Your task to perform on an android device: Clear the cart on newegg.com. Add dell alienware to the cart on newegg.com, then select checkout. Image 0: 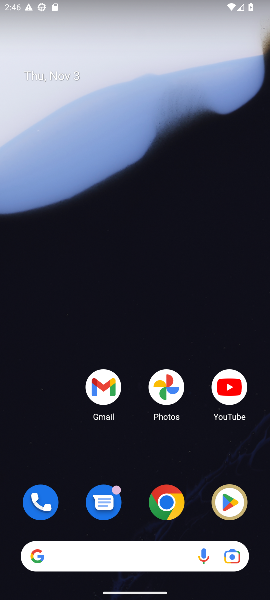
Step 0: drag from (130, 495) to (149, 275)
Your task to perform on an android device: Clear the cart on newegg.com. Add dell alienware to the cart on newegg.com, then select checkout. Image 1: 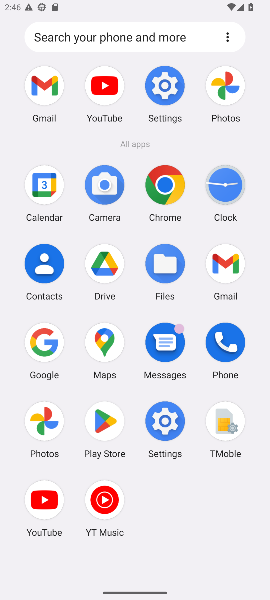
Step 1: click (49, 353)
Your task to perform on an android device: Clear the cart on newegg.com. Add dell alienware to the cart on newegg.com, then select checkout. Image 2: 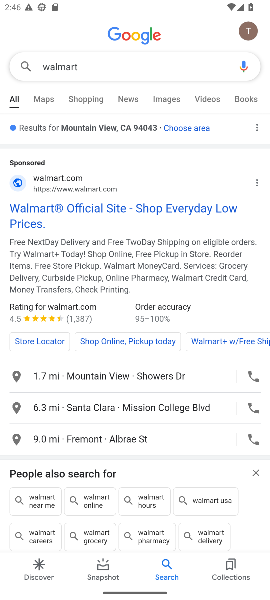
Step 2: click (148, 63)
Your task to perform on an android device: Clear the cart on newegg.com. Add dell alienware to the cart on newegg.com, then select checkout. Image 3: 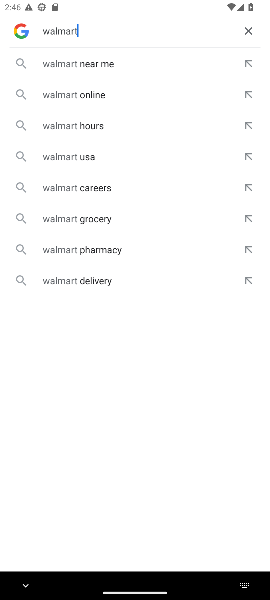
Step 3: click (246, 31)
Your task to perform on an android device: Clear the cart on newegg.com. Add dell alienware to the cart on newegg.com, then select checkout. Image 4: 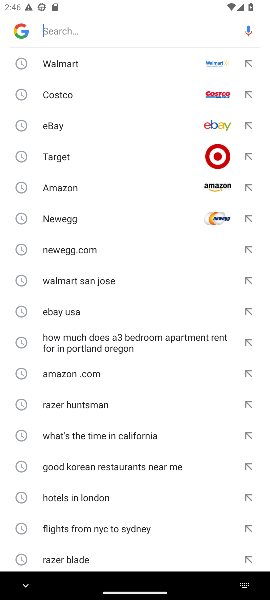
Step 4: type "newegg.com"
Your task to perform on an android device: Clear the cart on newegg.com. Add dell alienware to the cart on newegg.com, then select checkout. Image 5: 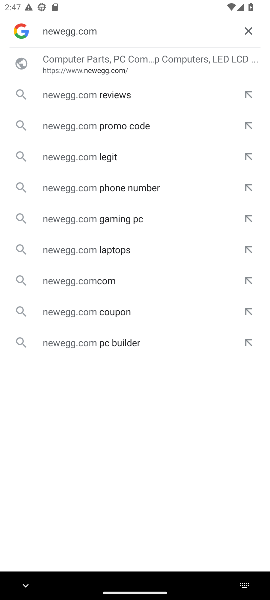
Step 5: click (190, 64)
Your task to perform on an android device: Clear the cart on newegg.com. Add dell alienware to the cart on newegg.com, then select checkout. Image 6: 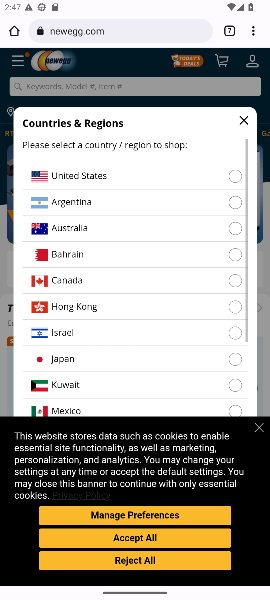
Step 6: click (262, 427)
Your task to perform on an android device: Clear the cart on newegg.com. Add dell alienware to the cart on newegg.com, then select checkout. Image 7: 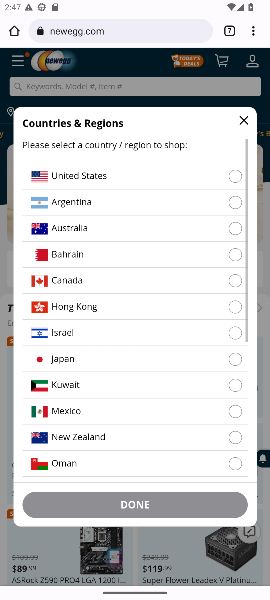
Step 7: click (242, 119)
Your task to perform on an android device: Clear the cart on newegg.com. Add dell alienware to the cart on newegg.com, then select checkout. Image 8: 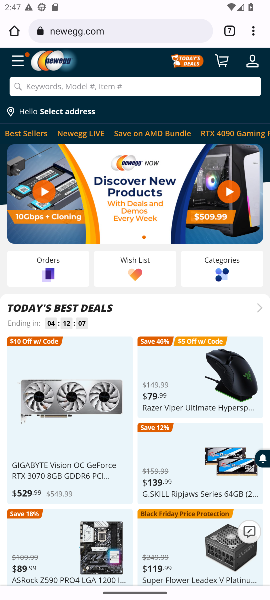
Step 8: click (139, 180)
Your task to perform on an android device: Clear the cart on newegg.com. Add dell alienware to the cart on newegg.com, then select checkout. Image 9: 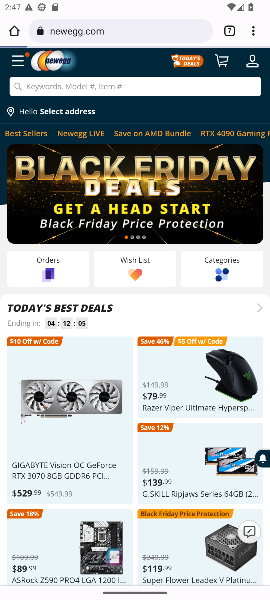
Step 9: click (151, 89)
Your task to perform on an android device: Clear the cart on newegg.com. Add dell alienware to the cart on newegg.com, then select checkout. Image 10: 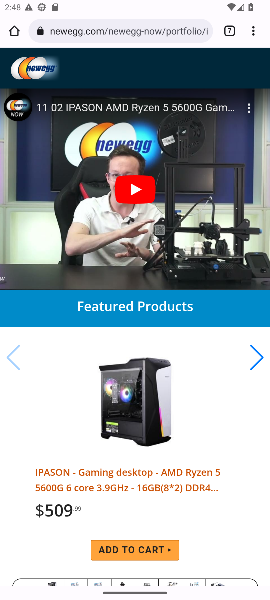
Step 10: press back button
Your task to perform on an android device: Clear the cart on newegg.com. Add dell alienware to the cart on newegg.com, then select checkout. Image 11: 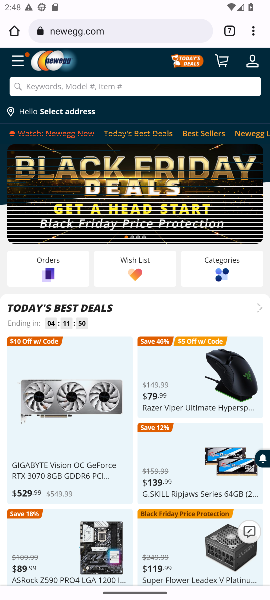
Step 11: click (166, 90)
Your task to perform on an android device: Clear the cart on newegg.com. Add dell alienware to the cart on newegg.com, then select checkout. Image 12: 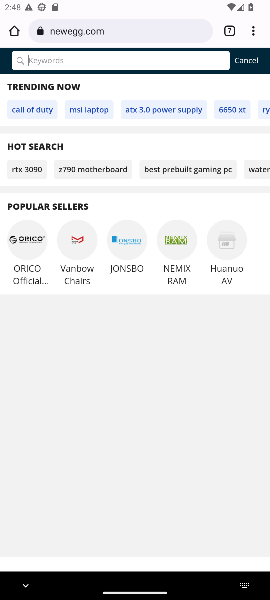
Step 12: type "dell alienware"
Your task to perform on an android device: Clear the cart on newegg.com. Add dell alienware to the cart on newegg.com, then select checkout. Image 13: 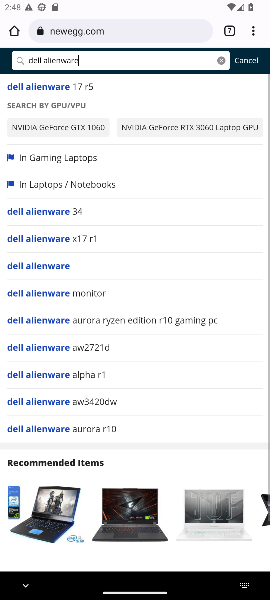
Step 13: click (61, 263)
Your task to perform on an android device: Clear the cart on newegg.com. Add dell alienware to the cart on newegg.com, then select checkout. Image 14: 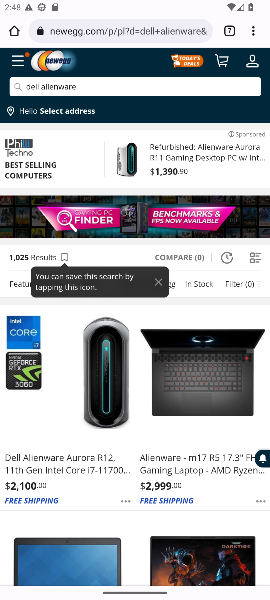
Step 14: click (82, 369)
Your task to perform on an android device: Clear the cart on newegg.com. Add dell alienware to the cart on newegg.com, then select checkout. Image 15: 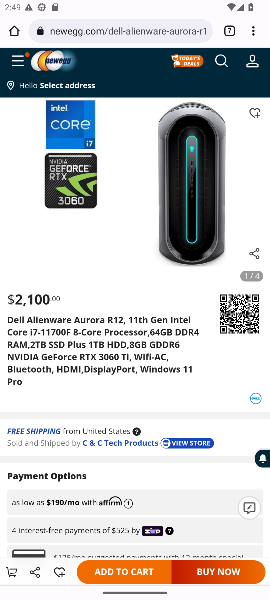
Step 15: click (159, 574)
Your task to perform on an android device: Clear the cart on newegg.com. Add dell alienware to the cart on newegg.com, then select checkout. Image 16: 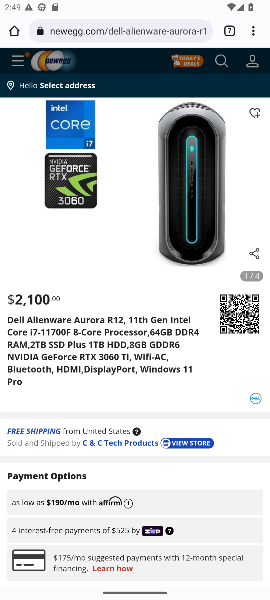
Step 16: drag from (167, 464) to (228, 146)
Your task to perform on an android device: Clear the cart on newegg.com. Add dell alienware to the cart on newegg.com, then select checkout. Image 17: 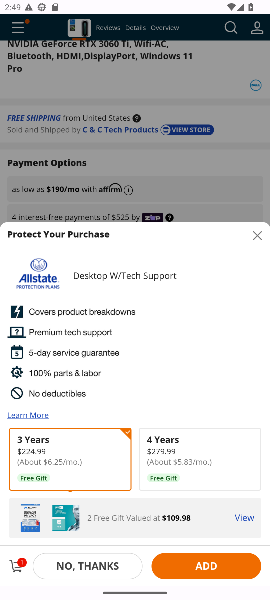
Step 17: click (87, 565)
Your task to perform on an android device: Clear the cart on newegg.com. Add dell alienware to the cart on newegg.com, then select checkout. Image 18: 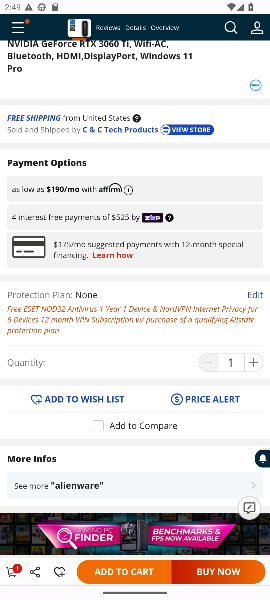
Step 18: click (13, 565)
Your task to perform on an android device: Clear the cart on newegg.com. Add dell alienware to the cart on newegg.com, then select checkout. Image 19: 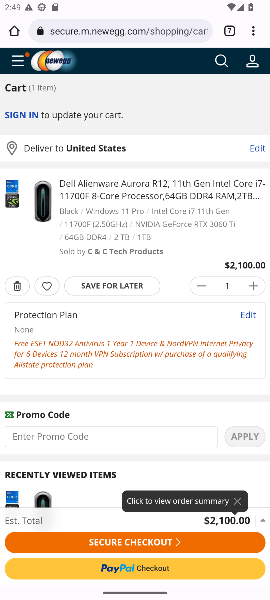
Step 19: drag from (126, 453) to (152, 249)
Your task to perform on an android device: Clear the cart on newegg.com. Add dell alienware to the cart on newegg.com, then select checkout. Image 20: 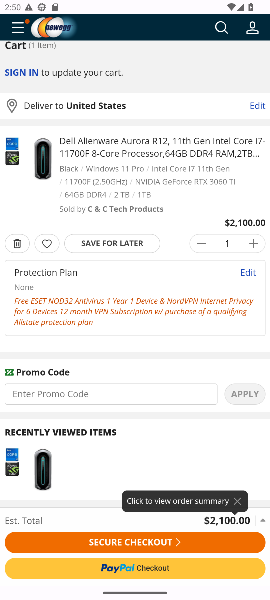
Step 20: click (167, 545)
Your task to perform on an android device: Clear the cart on newegg.com. Add dell alienware to the cart on newegg.com, then select checkout. Image 21: 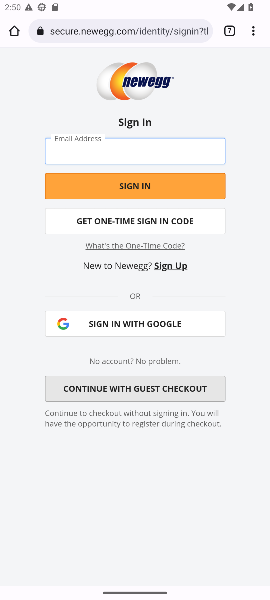
Step 21: task complete